Your task to perform on an android device: turn notification dots on Image 0: 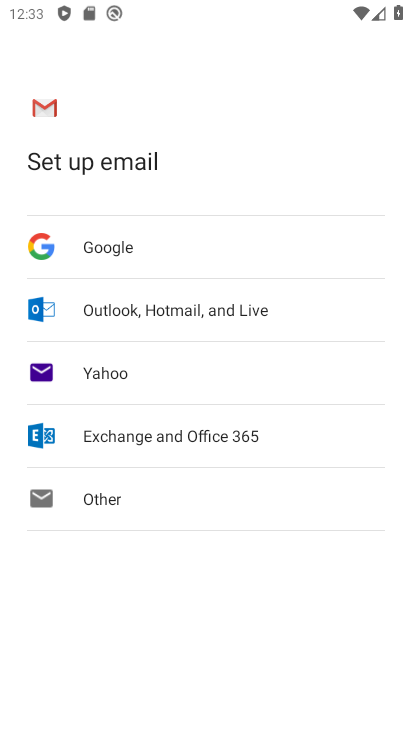
Step 0: press home button
Your task to perform on an android device: turn notification dots on Image 1: 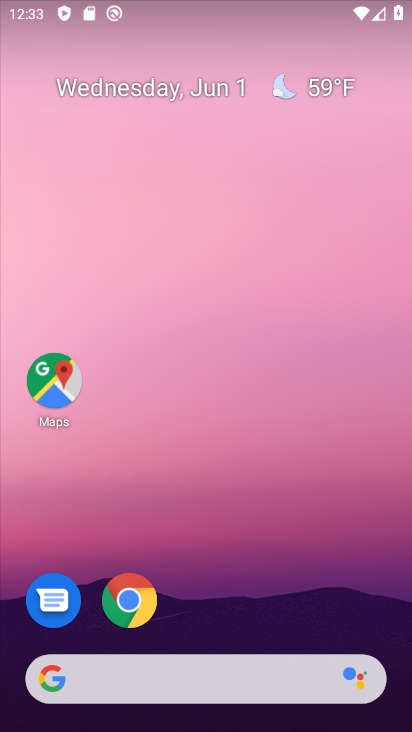
Step 1: drag from (234, 614) to (265, 103)
Your task to perform on an android device: turn notification dots on Image 2: 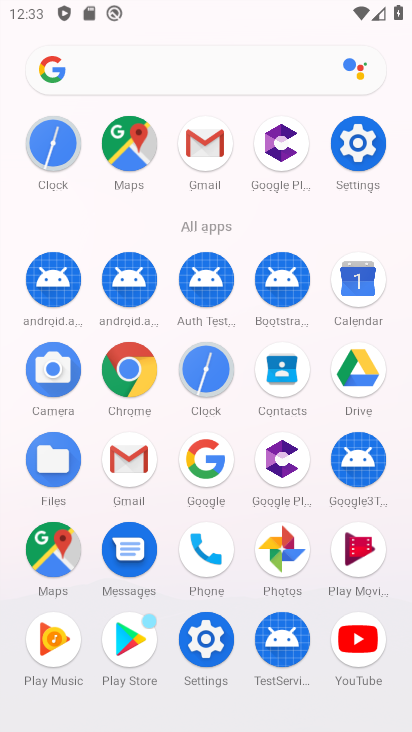
Step 2: click (371, 138)
Your task to perform on an android device: turn notification dots on Image 3: 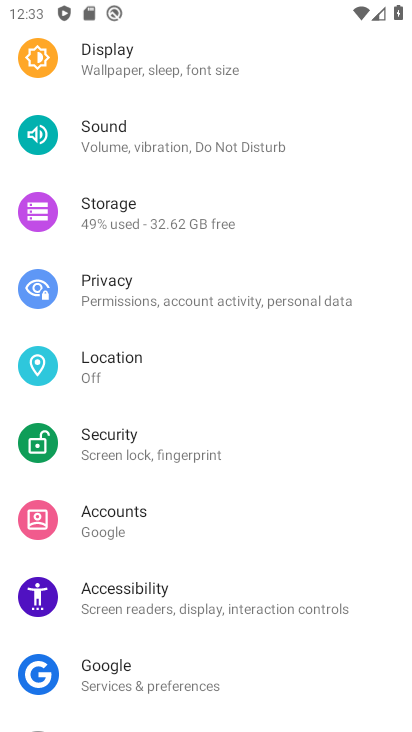
Step 3: drag from (138, 100) to (207, 542)
Your task to perform on an android device: turn notification dots on Image 4: 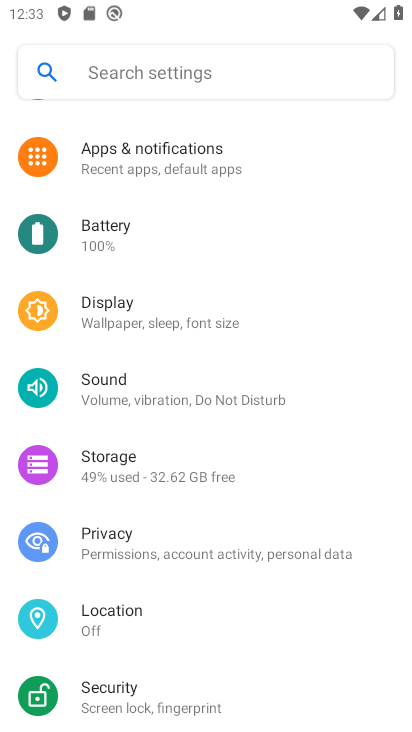
Step 4: click (158, 163)
Your task to perform on an android device: turn notification dots on Image 5: 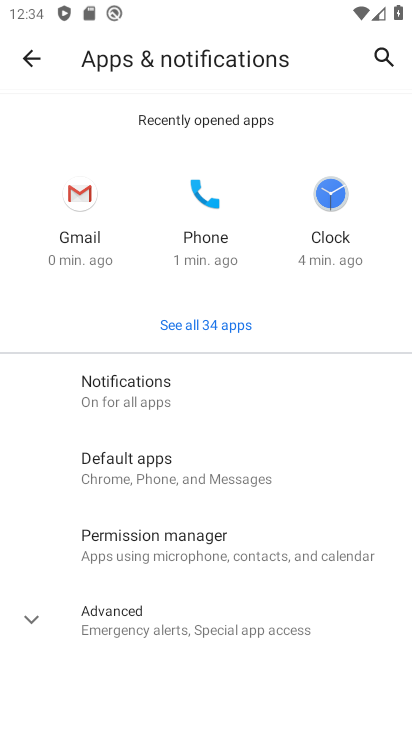
Step 5: click (172, 359)
Your task to perform on an android device: turn notification dots on Image 6: 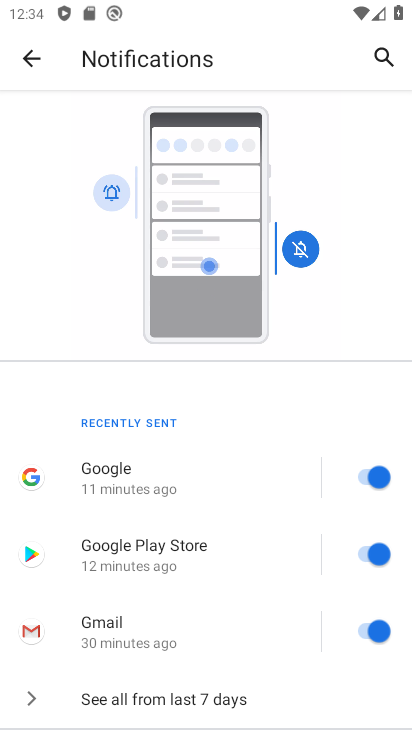
Step 6: drag from (187, 644) to (270, 118)
Your task to perform on an android device: turn notification dots on Image 7: 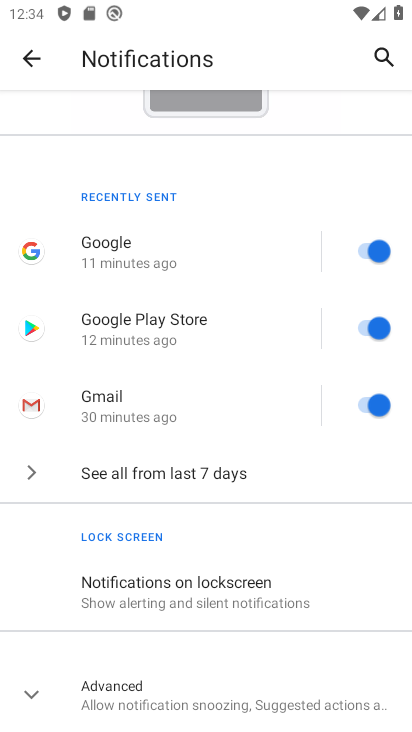
Step 7: click (229, 599)
Your task to perform on an android device: turn notification dots on Image 8: 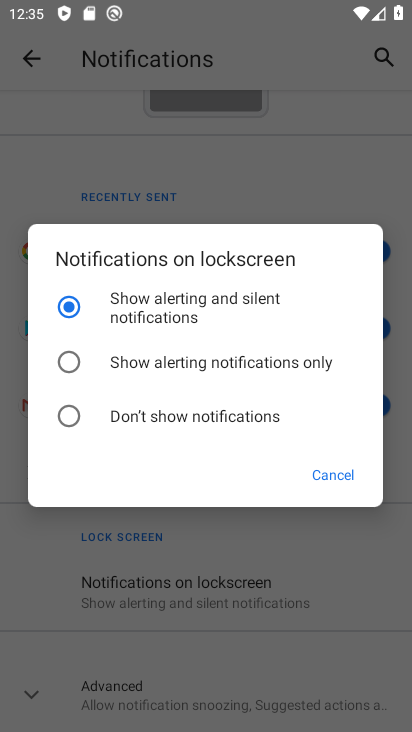
Step 8: click (122, 625)
Your task to perform on an android device: turn notification dots on Image 9: 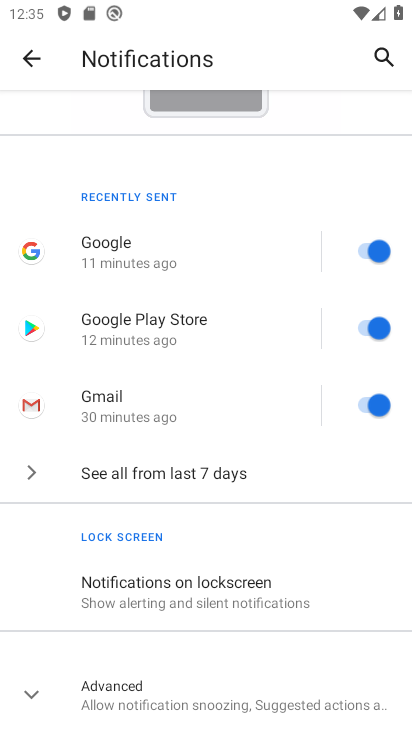
Step 9: click (198, 595)
Your task to perform on an android device: turn notification dots on Image 10: 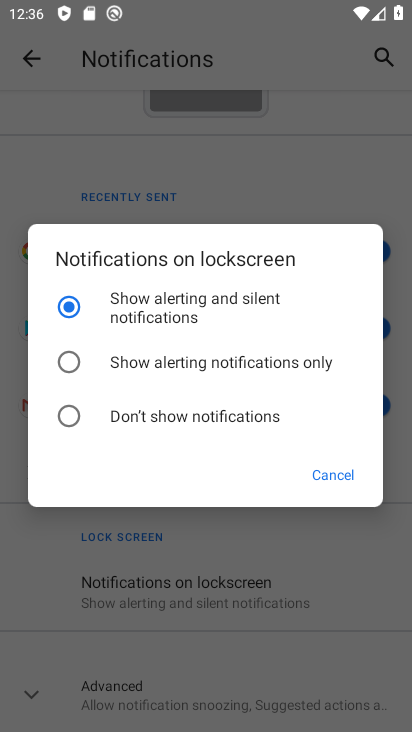
Step 10: click (361, 463)
Your task to perform on an android device: turn notification dots on Image 11: 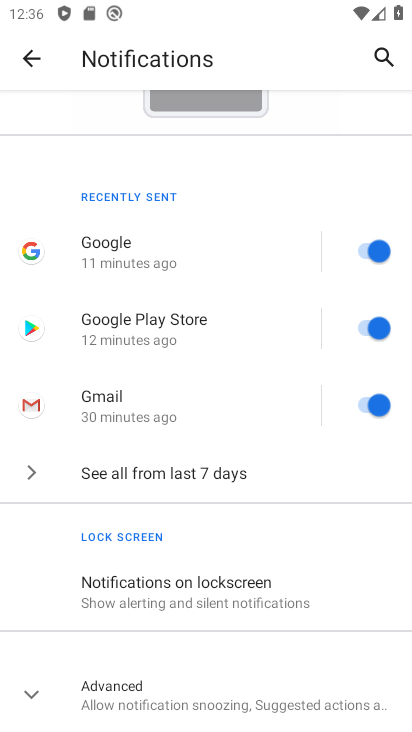
Step 11: click (104, 715)
Your task to perform on an android device: turn notification dots on Image 12: 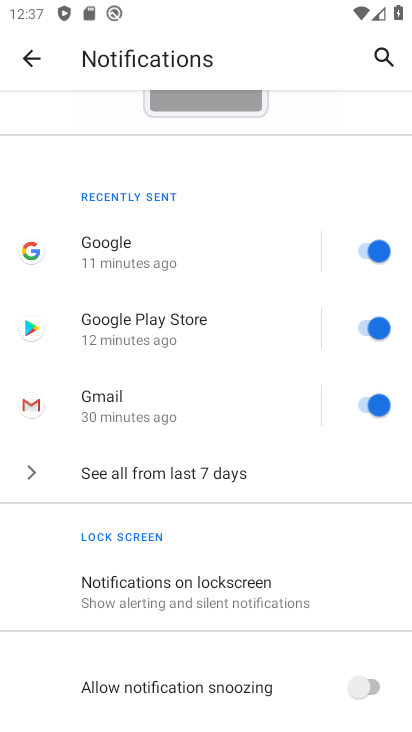
Step 12: click (226, 606)
Your task to perform on an android device: turn notification dots on Image 13: 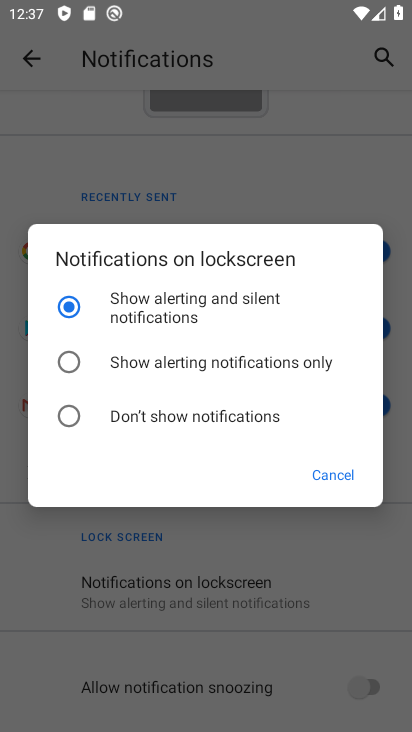
Step 13: click (345, 487)
Your task to perform on an android device: turn notification dots on Image 14: 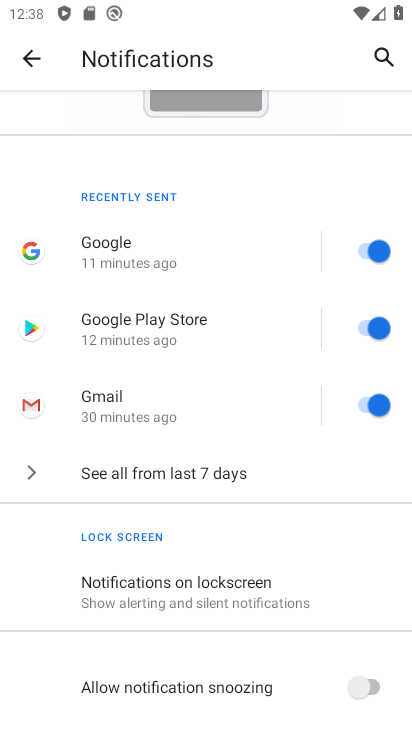
Step 14: click (210, 591)
Your task to perform on an android device: turn notification dots on Image 15: 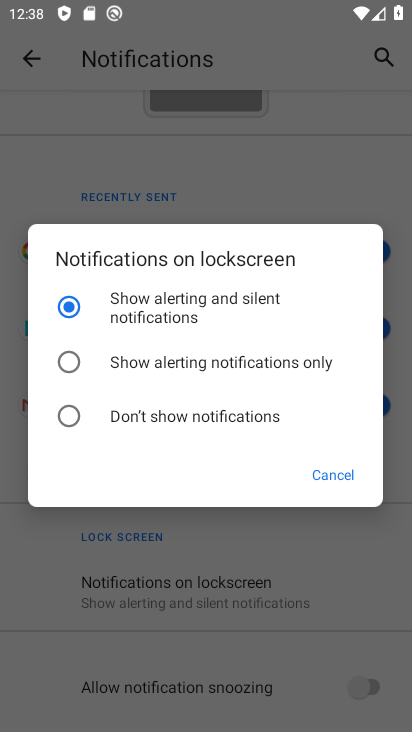
Step 15: click (336, 475)
Your task to perform on an android device: turn notification dots on Image 16: 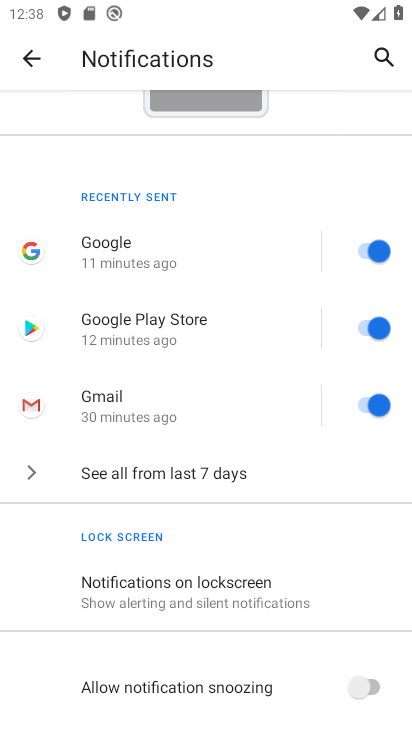
Step 16: task complete